Your task to perform on an android device: toggle javascript in the chrome app Image 0: 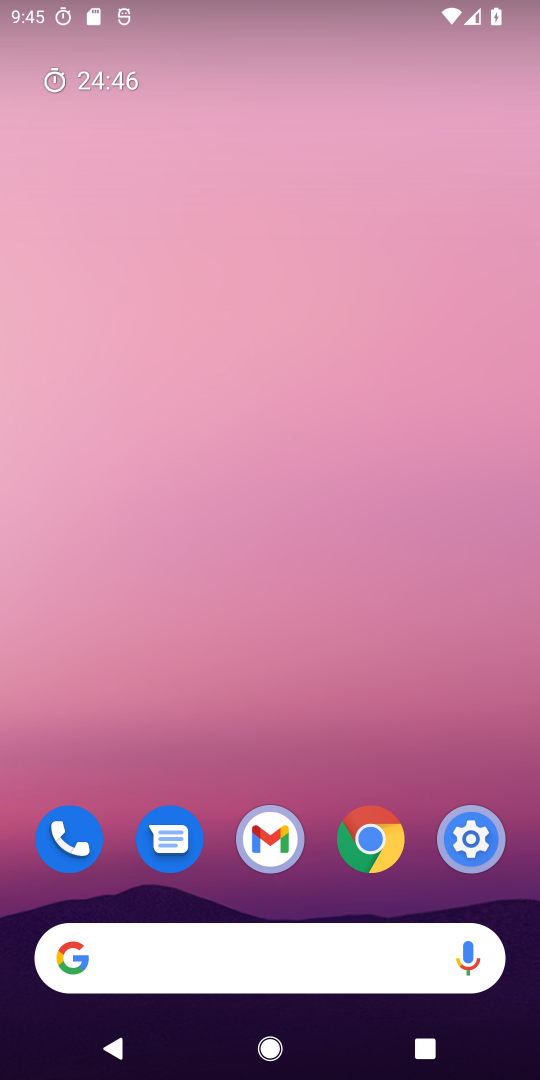
Step 0: press home button
Your task to perform on an android device: toggle javascript in the chrome app Image 1: 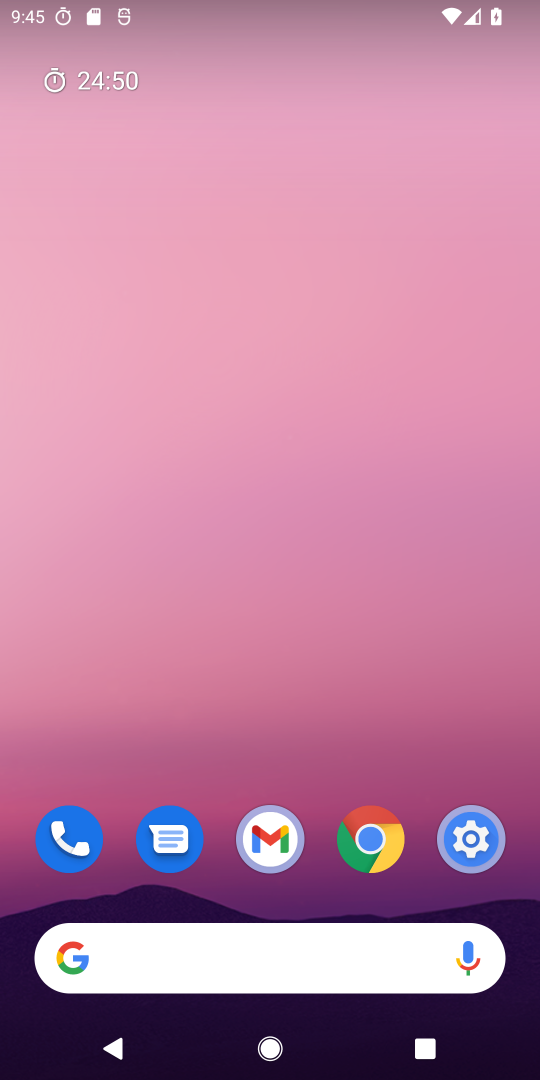
Step 1: drag from (328, 896) to (394, 0)
Your task to perform on an android device: toggle javascript in the chrome app Image 2: 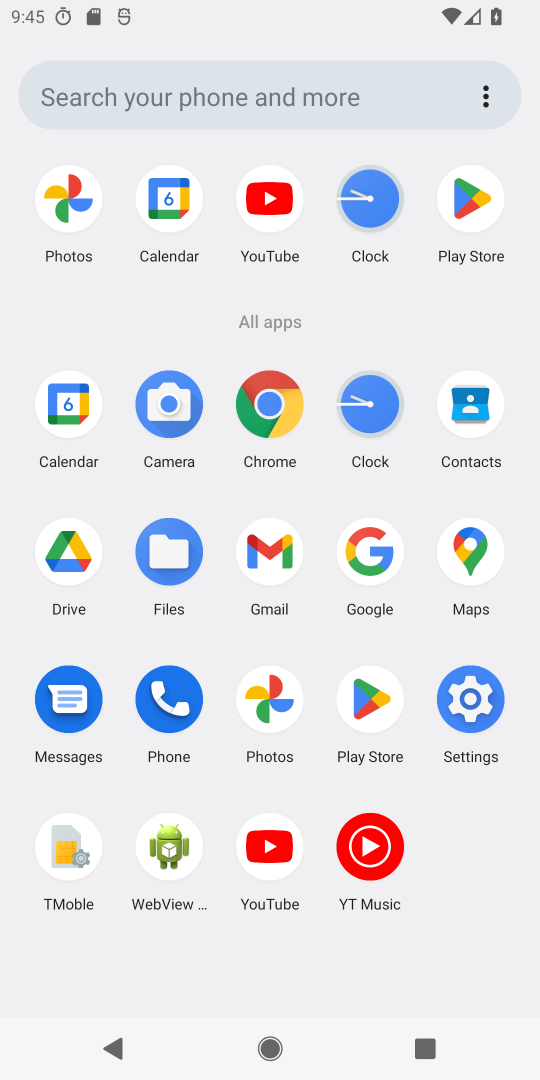
Step 2: click (258, 401)
Your task to perform on an android device: toggle javascript in the chrome app Image 3: 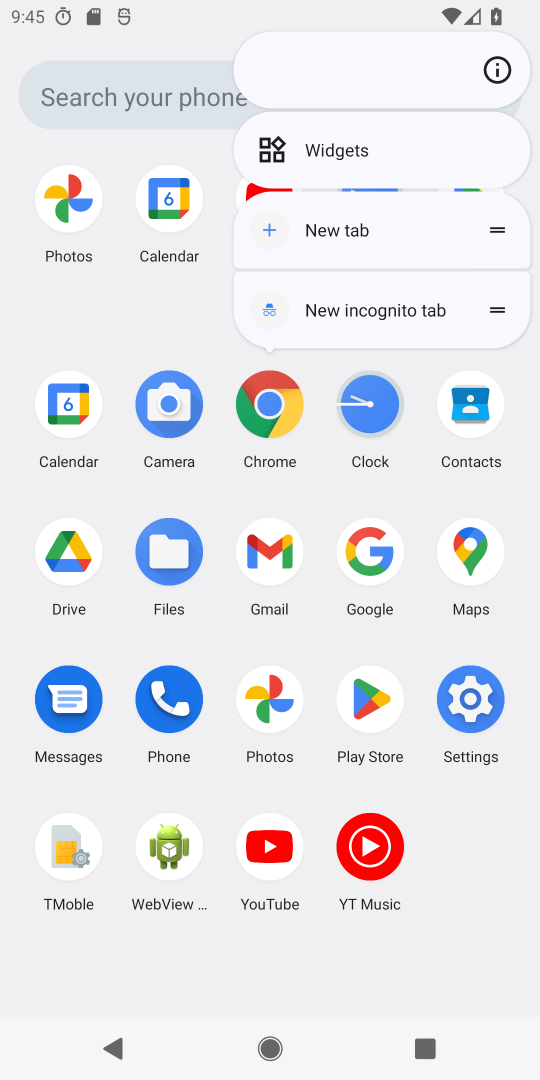
Step 3: click (267, 394)
Your task to perform on an android device: toggle javascript in the chrome app Image 4: 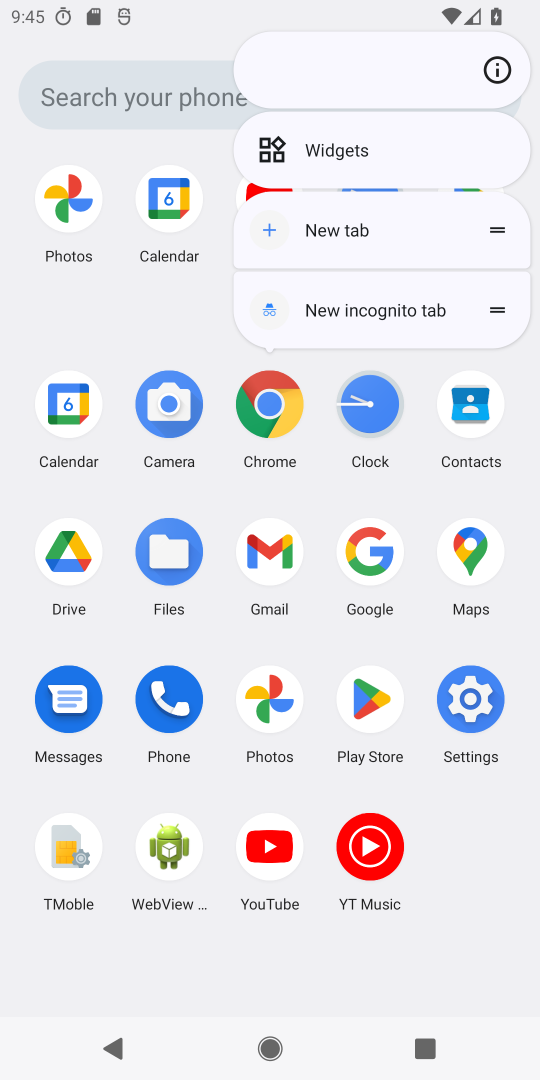
Step 4: click (268, 412)
Your task to perform on an android device: toggle javascript in the chrome app Image 5: 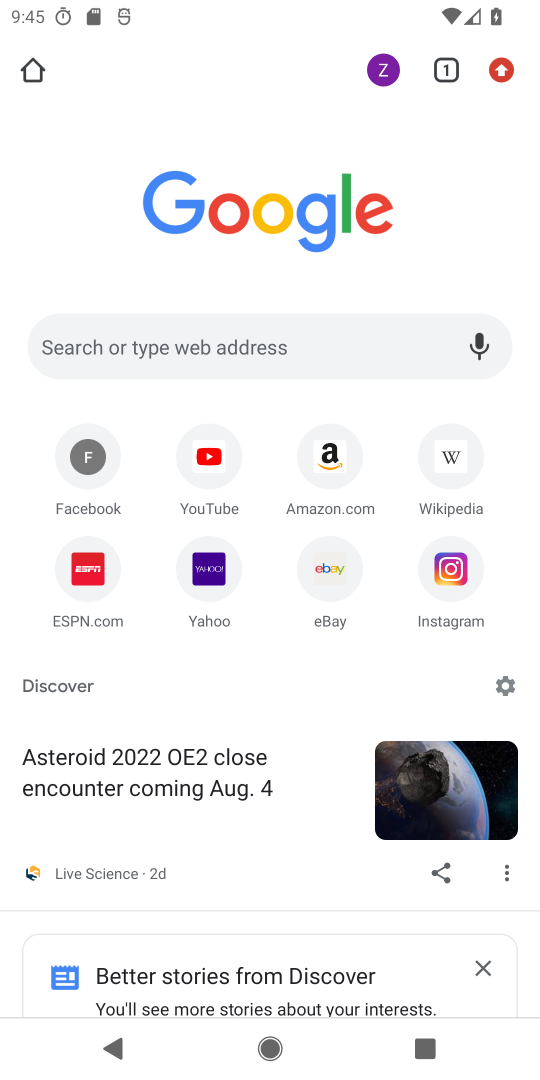
Step 5: click (495, 70)
Your task to perform on an android device: toggle javascript in the chrome app Image 6: 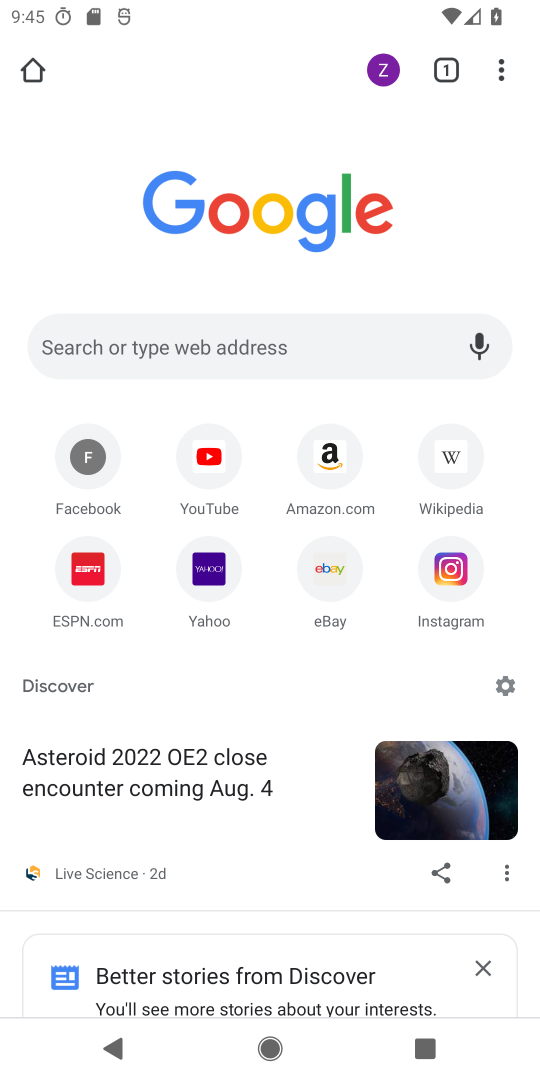
Step 6: click (499, 66)
Your task to perform on an android device: toggle javascript in the chrome app Image 7: 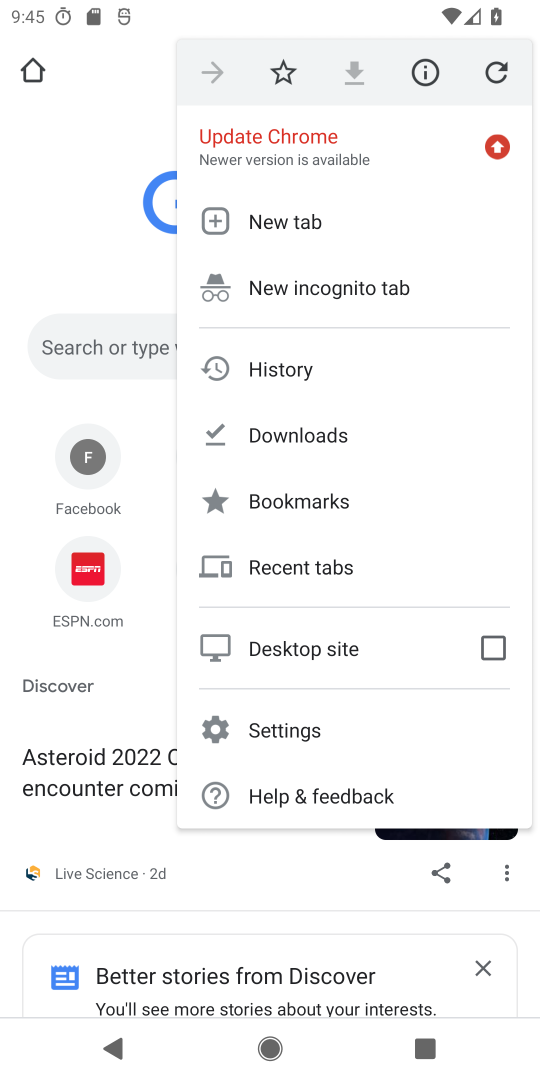
Step 7: click (326, 724)
Your task to perform on an android device: toggle javascript in the chrome app Image 8: 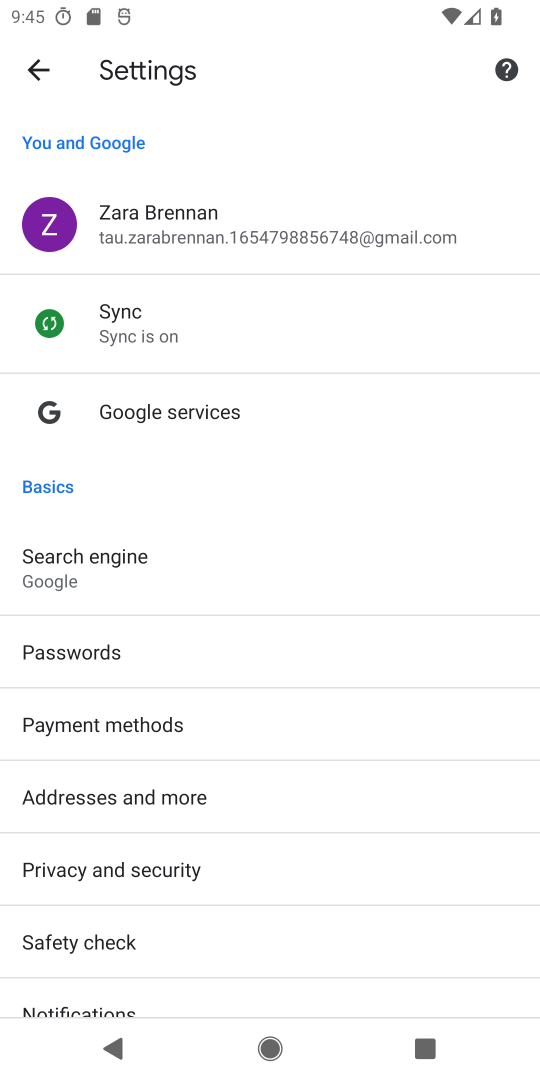
Step 8: drag from (224, 938) to (299, 206)
Your task to perform on an android device: toggle javascript in the chrome app Image 9: 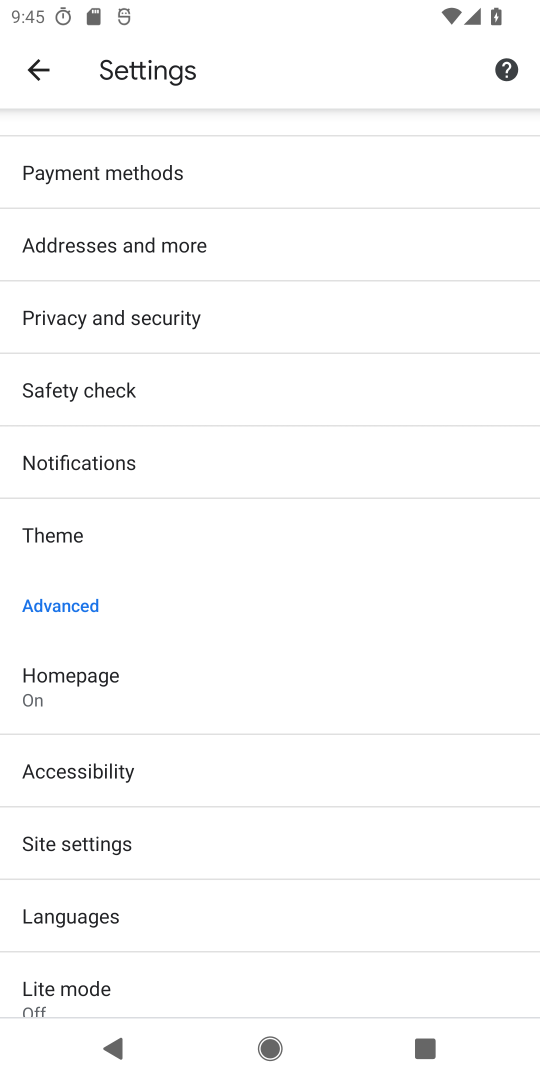
Step 9: click (148, 842)
Your task to perform on an android device: toggle javascript in the chrome app Image 10: 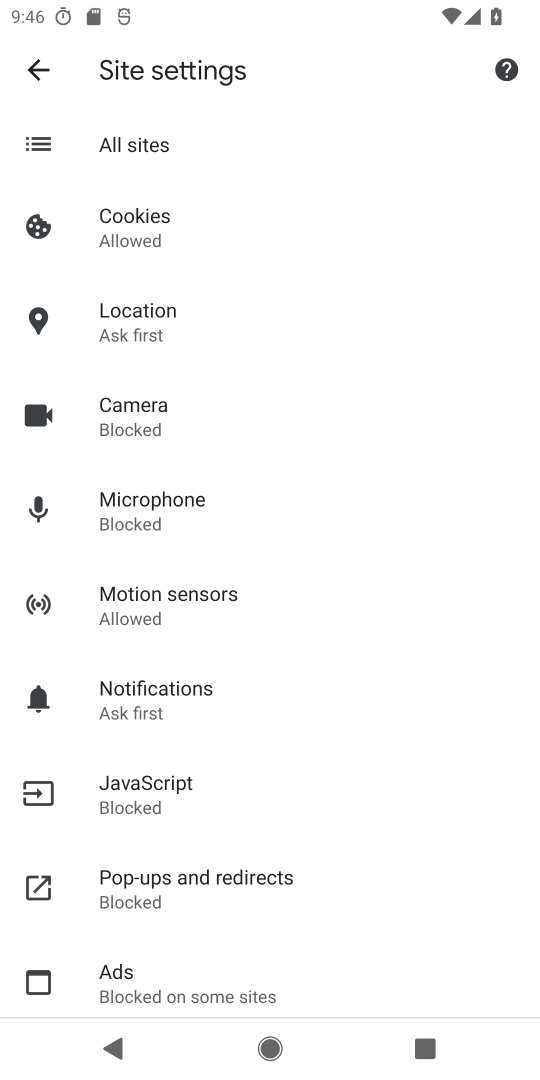
Step 10: click (168, 792)
Your task to perform on an android device: toggle javascript in the chrome app Image 11: 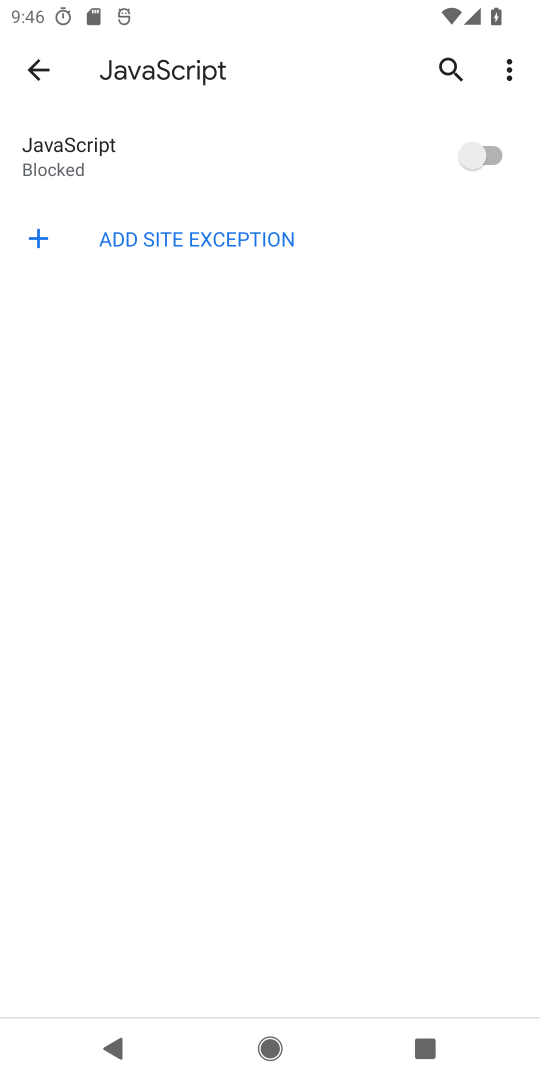
Step 11: click (489, 159)
Your task to perform on an android device: toggle javascript in the chrome app Image 12: 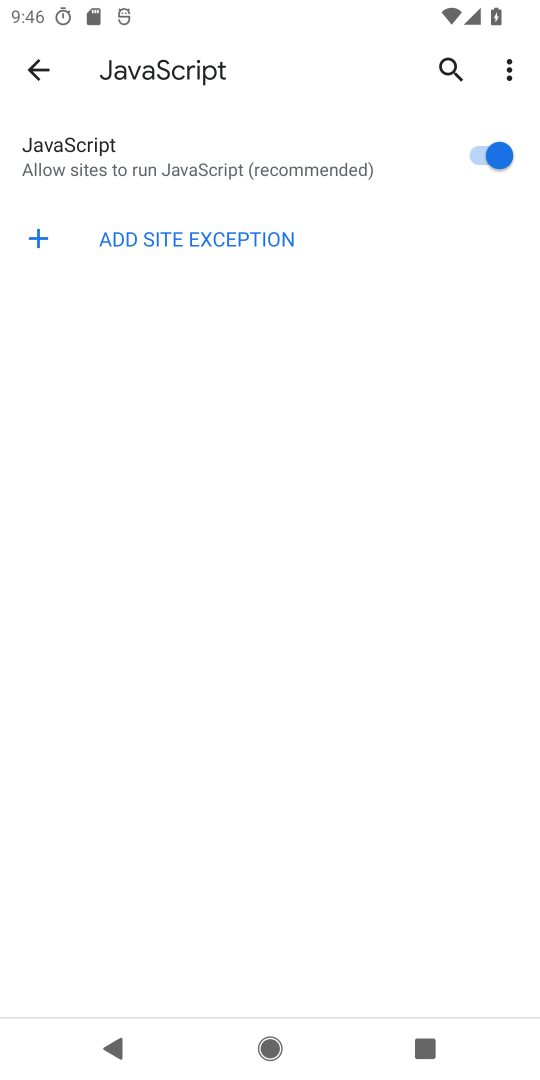
Step 12: task complete